Your task to perform on an android device: manage bookmarks in the chrome app Image 0: 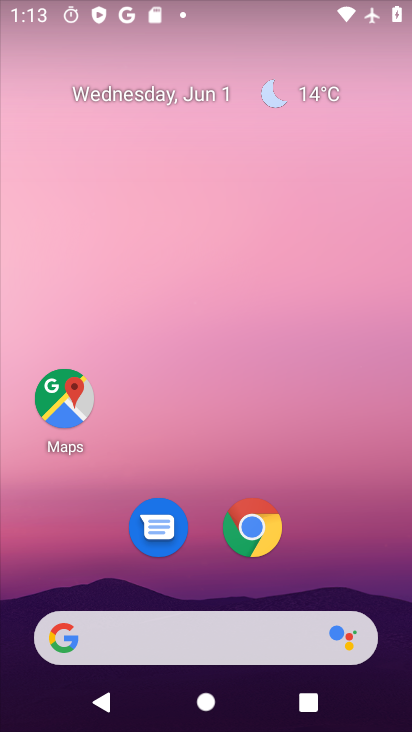
Step 0: click (268, 540)
Your task to perform on an android device: manage bookmarks in the chrome app Image 1: 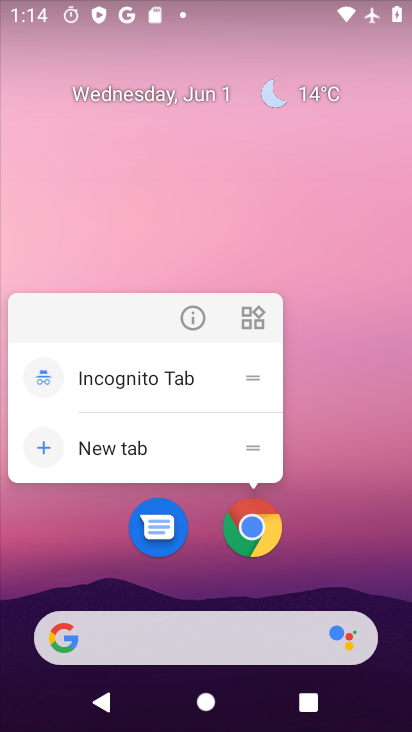
Step 1: click (258, 541)
Your task to perform on an android device: manage bookmarks in the chrome app Image 2: 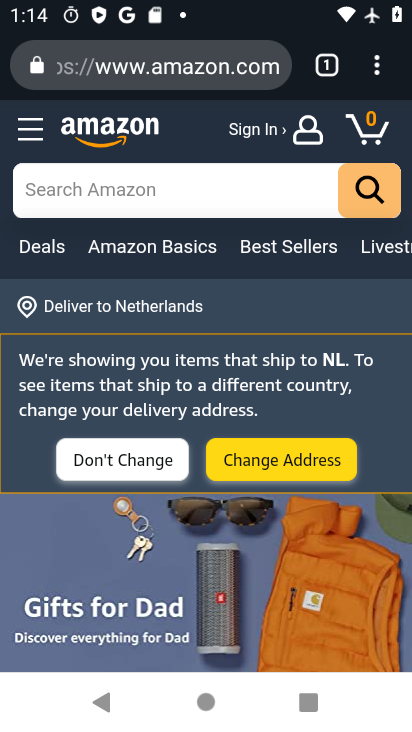
Step 2: click (371, 79)
Your task to perform on an android device: manage bookmarks in the chrome app Image 3: 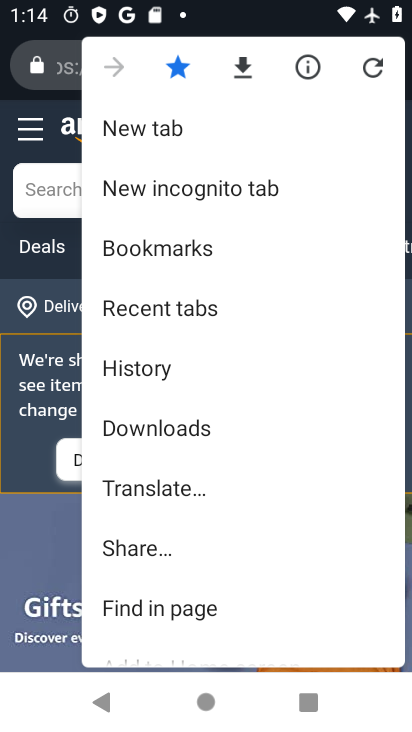
Step 3: click (202, 247)
Your task to perform on an android device: manage bookmarks in the chrome app Image 4: 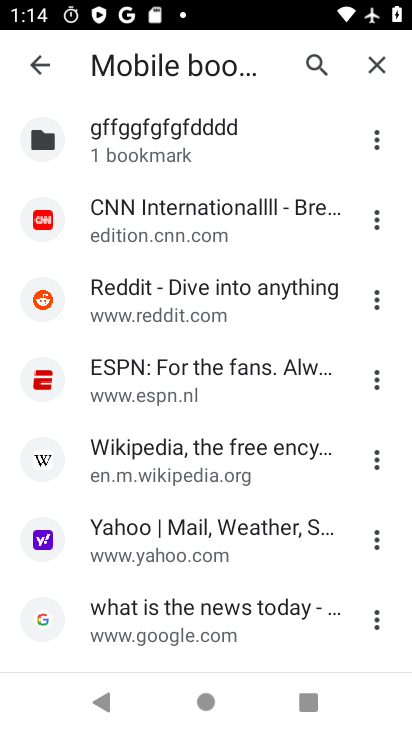
Step 4: task complete